Your task to perform on an android device: check data usage Image 0: 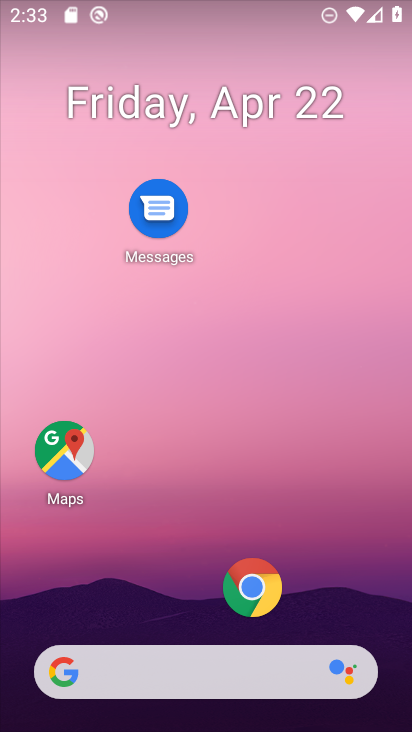
Step 0: drag from (184, 570) to (184, 173)
Your task to perform on an android device: check data usage Image 1: 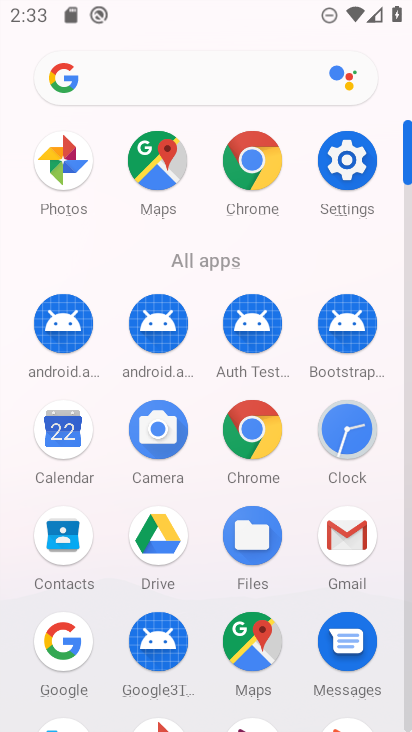
Step 1: click (334, 173)
Your task to perform on an android device: check data usage Image 2: 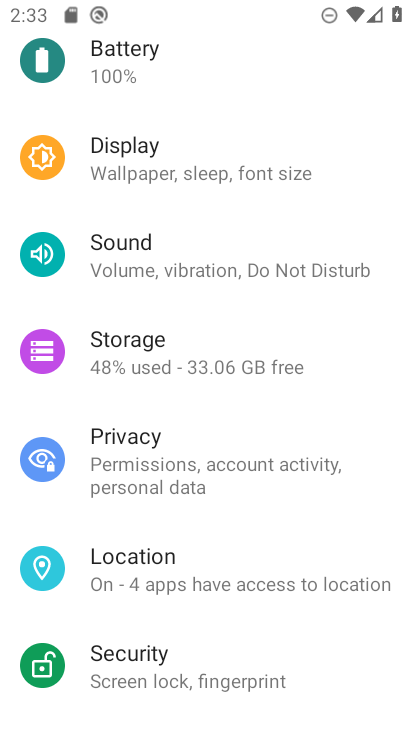
Step 2: drag from (206, 145) to (214, 494)
Your task to perform on an android device: check data usage Image 3: 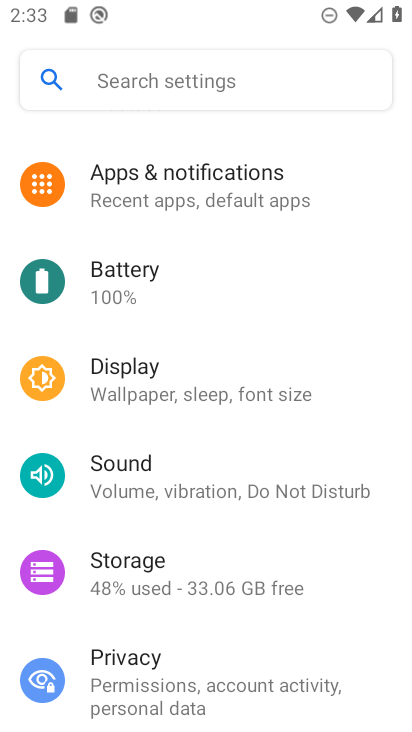
Step 3: drag from (204, 218) to (210, 408)
Your task to perform on an android device: check data usage Image 4: 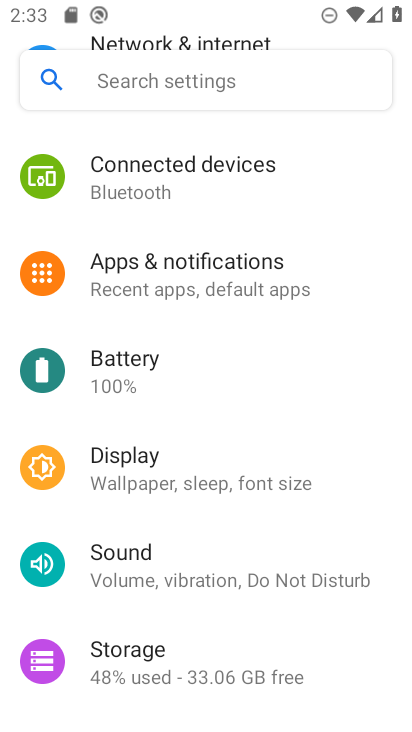
Step 4: drag from (198, 180) to (207, 378)
Your task to perform on an android device: check data usage Image 5: 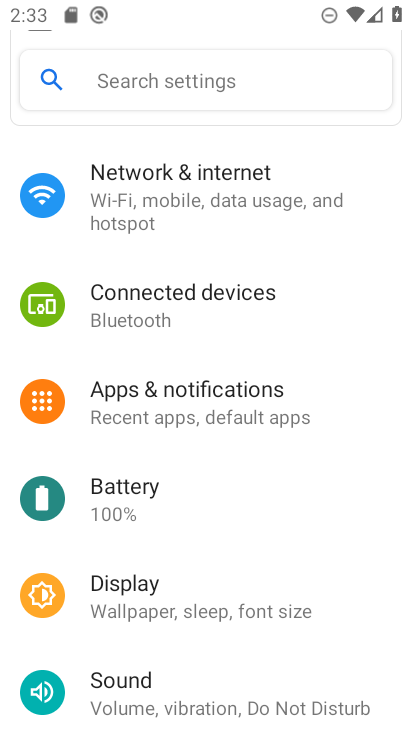
Step 5: click (190, 208)
Your task to perform on an android device: check data usage Image 6: 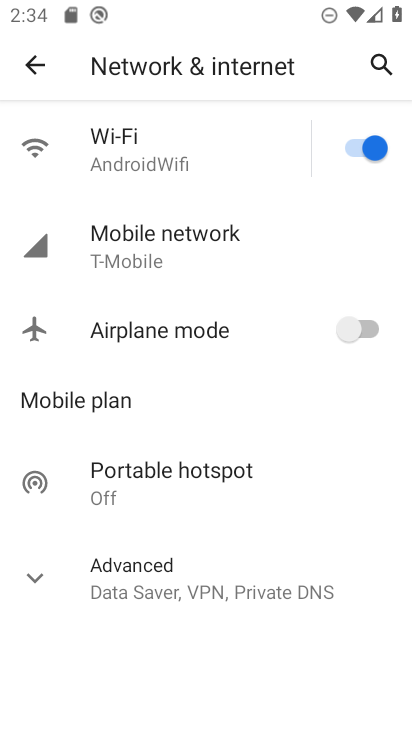
Step 6: click (204, 250)
Your task to perform on an android device: check data usage Image 7: 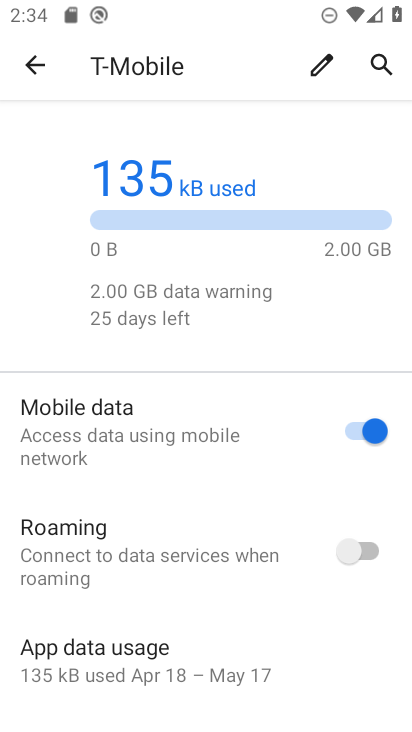
Step 7: click (155, 642)
Your task to perform on an android device: check data usage Image 8: 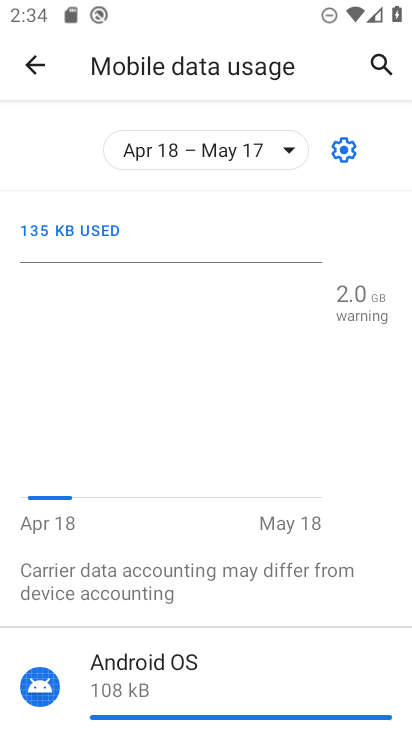
Step 8: task complete